Your task to perform on an android device: Do I have any events this weekend? Image 0: 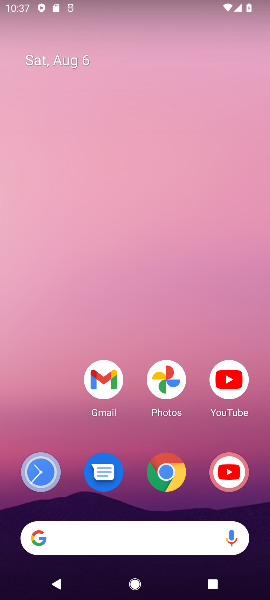
Step 0: drag from (194, 570) to (123, 129)
Your task to perform on an android device: Do I have any events this weekend? Image 1: 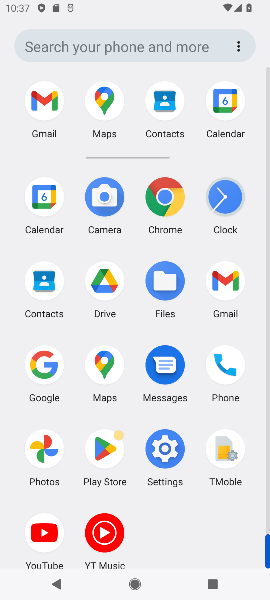
Step 1: click (223, 98)
Your task to perform on an android device: Do I have any events this weekend? Image 2: 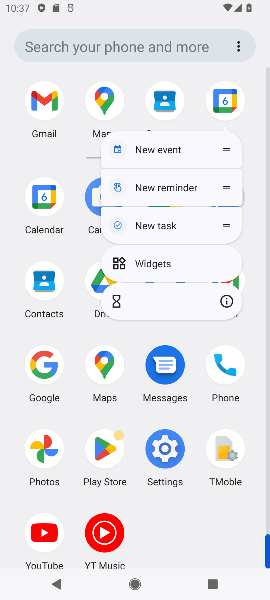
Step 2: click (224, 95)
Your task to perform on an android device: Do I have any events this weekend? Image 3: 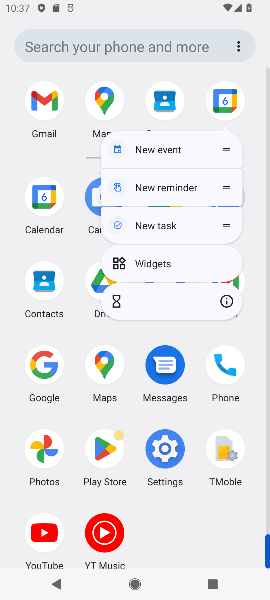
Step 3: click (210, 100)
Your task to perform on an android device: Do I have any events this weekend? Image 4: 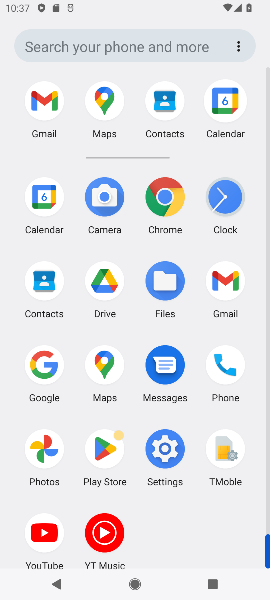
Step 4: click (210, 100)
Your task to perform on an android device: Do I have any events this weekend? Image 5: 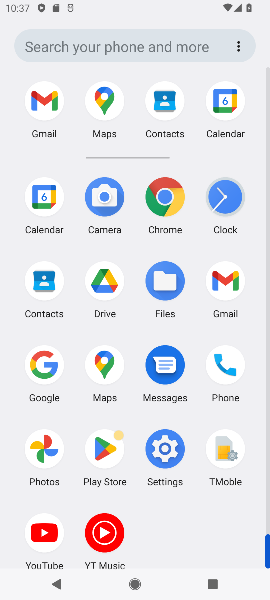
Step 5: click (217, 93)
Your task to perform on an android device: Do I have any events this weekend? Image 6: 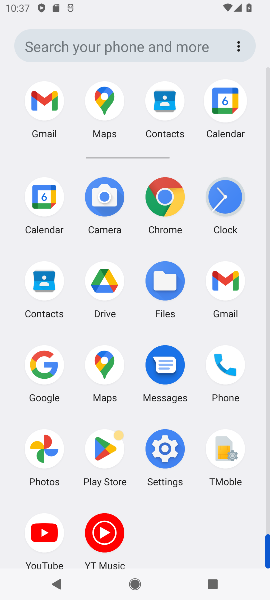
Step 6: click (225, 98)
Your task to perform on an android device: Do I have any events this weekend? Image 7: 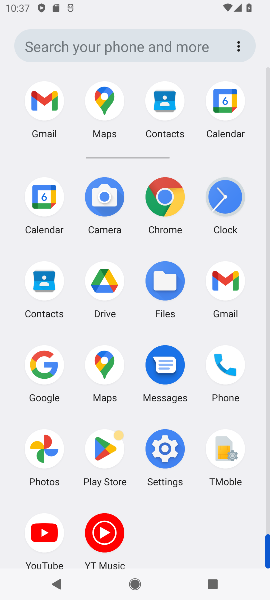
Step 7: click (225, 98)
Your task to perform on an android device: Do I have any events this weekend? Image 8: 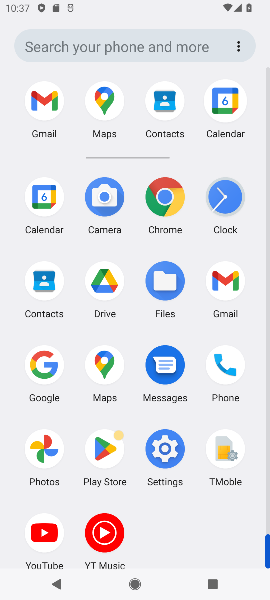
Step 8: click (225, 98)
Your task to perform on an android device: Do I have any events this weekend? Image 9: 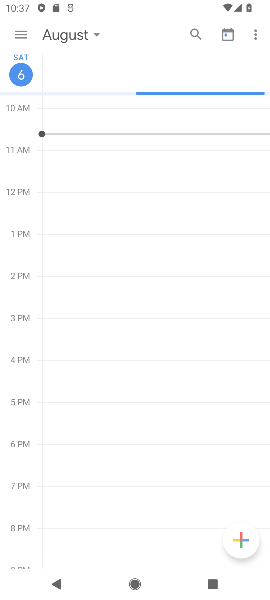
Step 9: click (225, 98)
Your task to perform on an android device: Do I have any events this weekend? Image 10: 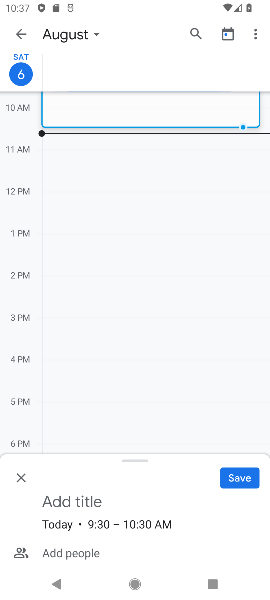
Step 10: click (97, 35)
Your task to perform on an android device: Do I have any events this weekend? Image 11: 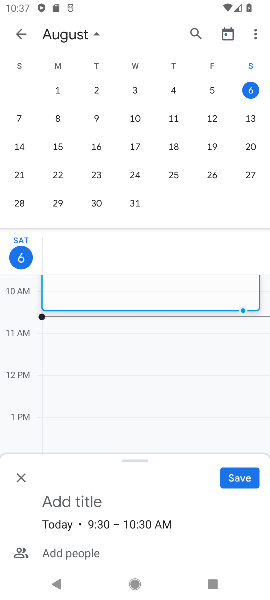
Step 11: click (12, 111)
Your task to perform on an android device: Do I have any events this weekend? Image 12: 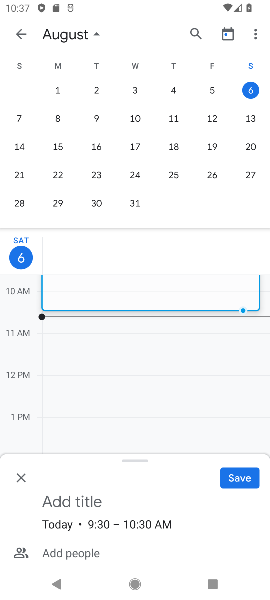
Step 12: click (13, 111)
Your task to perform on an android device: Do I have any events this weekend? Image 13: 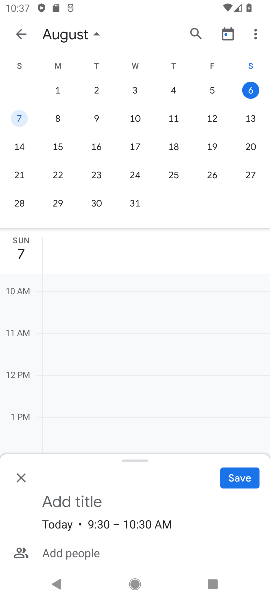
Step 13: task complete